Your task to perform on an android device: Open the stopwatch Image 0: 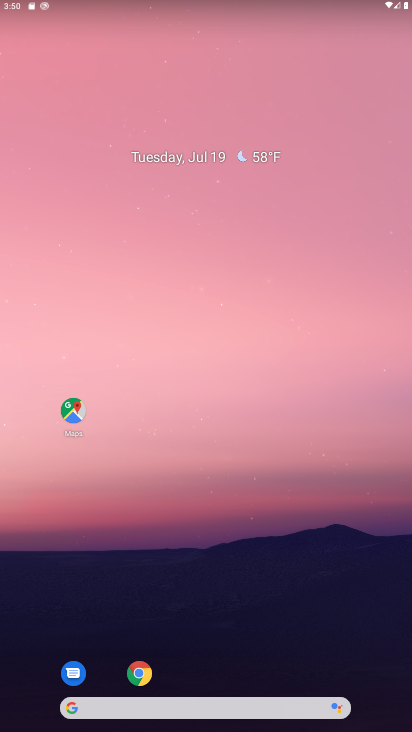
Step 0: drag from (233, 692) to (274, 60)
Your task to perform on an android device: Open the stopwatch Image 1: 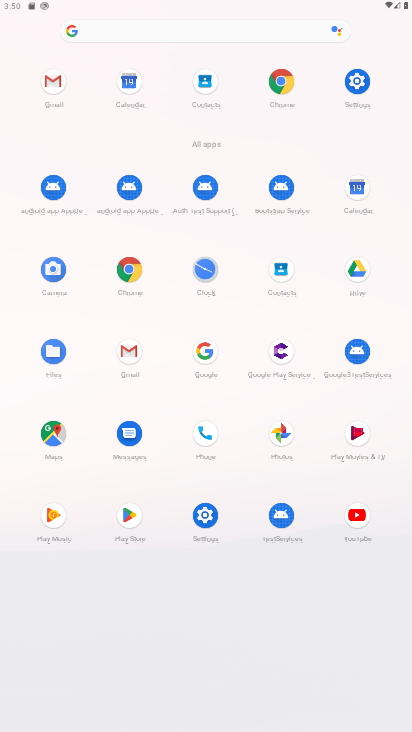
Step 1: click (211, 270)
Your task to perform on an android device: Open the stopwatch Image 2: 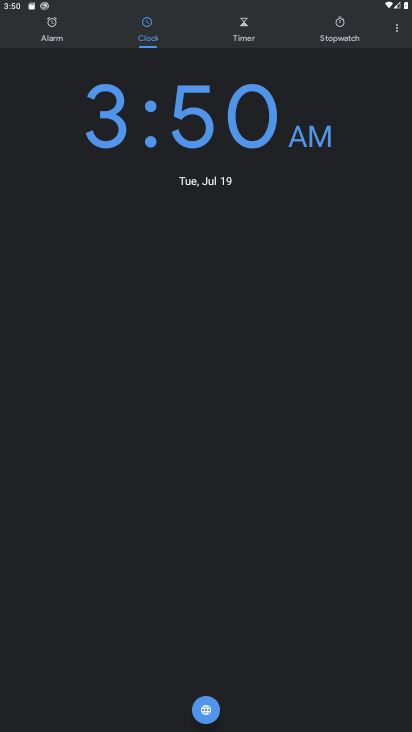
Step 2: click (343, 33)
Your task to perform on an android device: Open the stopwatch Image 3: 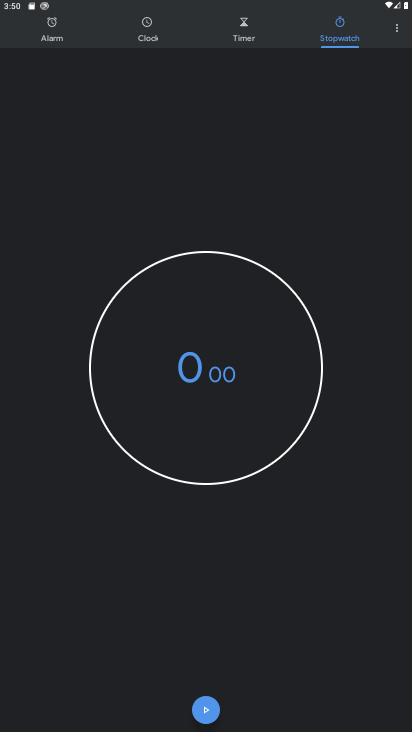
Step 3: task complete